Your task to perform on an android device: turn on data saver in the chrome app Image 0: 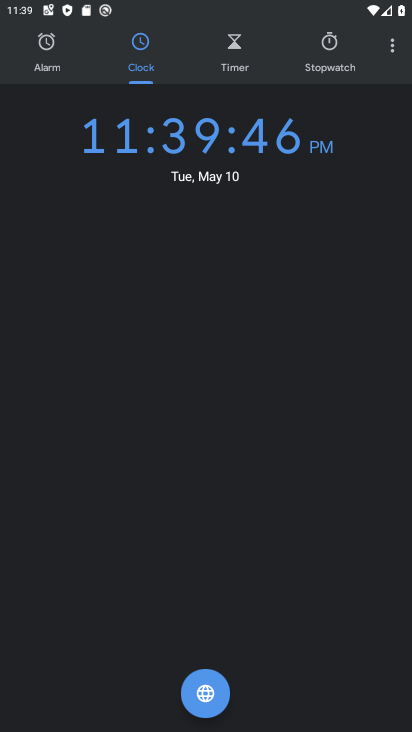
Step 0: press home button
Your task to perform on an android device: turn on data saver in the chrome app Image 1: 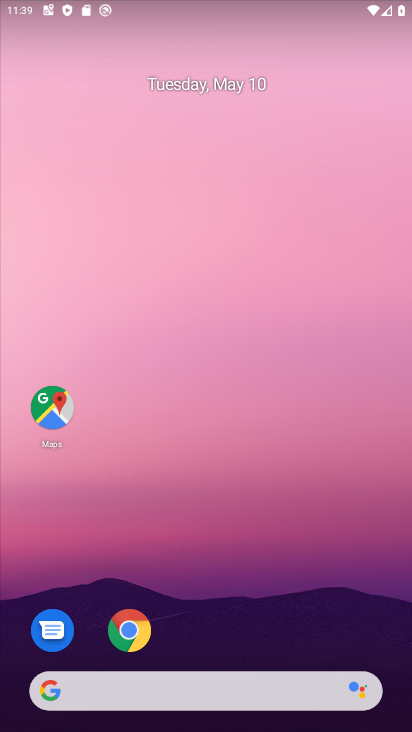
Step 1: click (127, 625)
Your task to perform on an android device: turn on data saver in the chrome app Image 2: 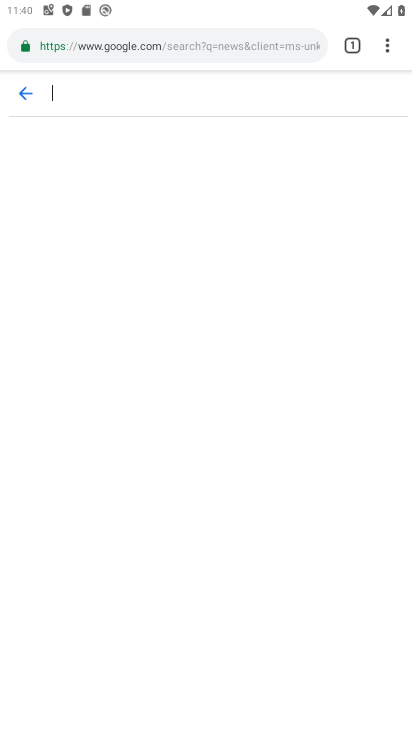
Step 2: drag from (390, 39) to (266, 500)
Your task to perform on an android device: turn on data saver in the chrome app Image 3: 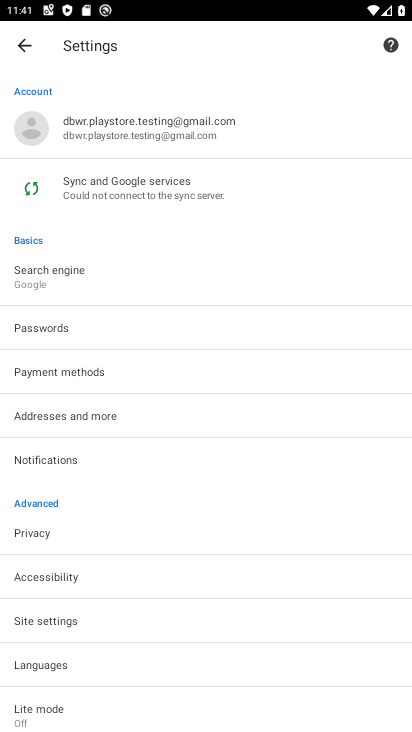
Step 3: click (73, 711)
Your task to perform on an android device: turn on data saver in the chrome app Image 4: 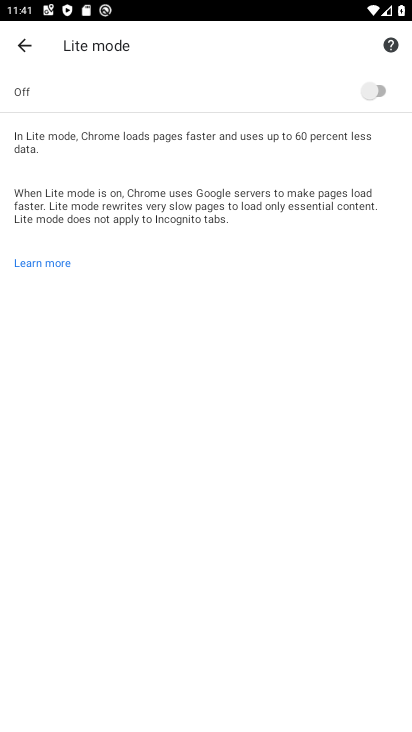
Step 4: click (363, 103)
Your task to perform on an android device: turn on data saver in the chrome app Image 5: 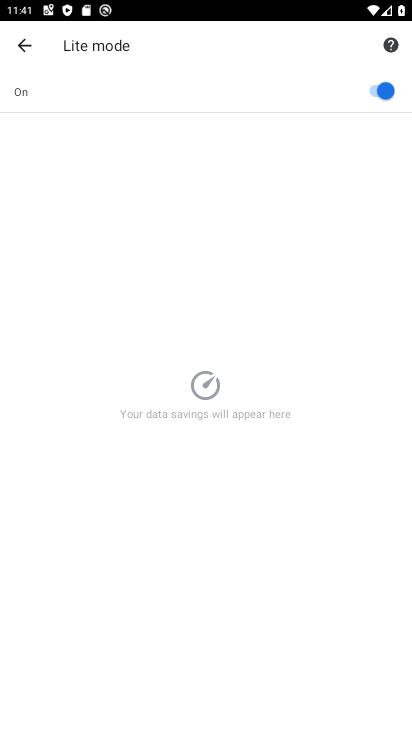
Step 5: task complete